Your task to perform on an android device: Find coffee shops on Maps Image 0: 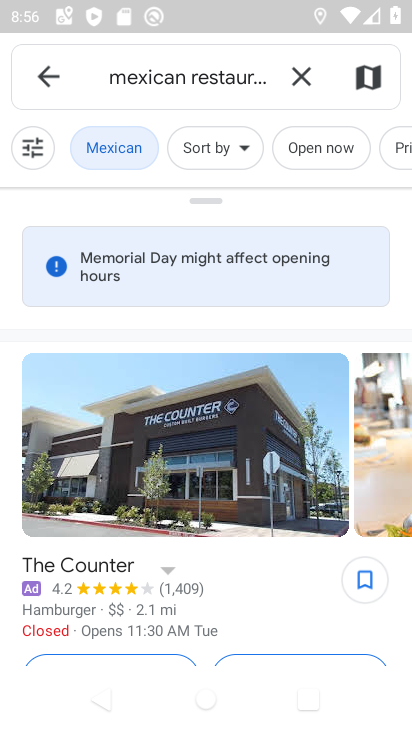
Step 0: click (313, 70)
Your task to perform on an android device: Find coffee shops on Maps Image 1: 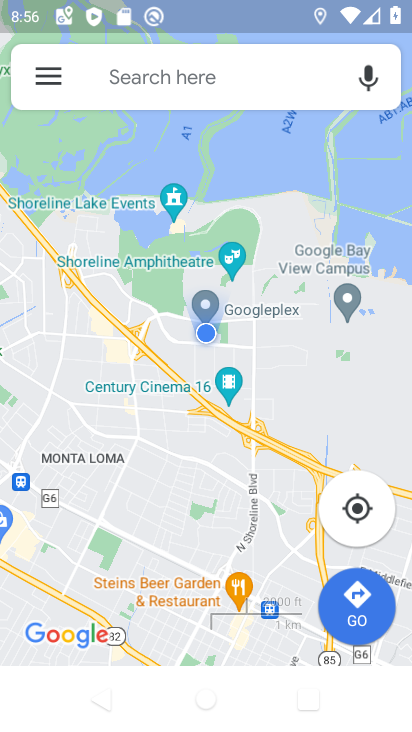
Step 1: click (178, 72)
Your task to perform on an android device: Find coffee shops on Maps Image 2: 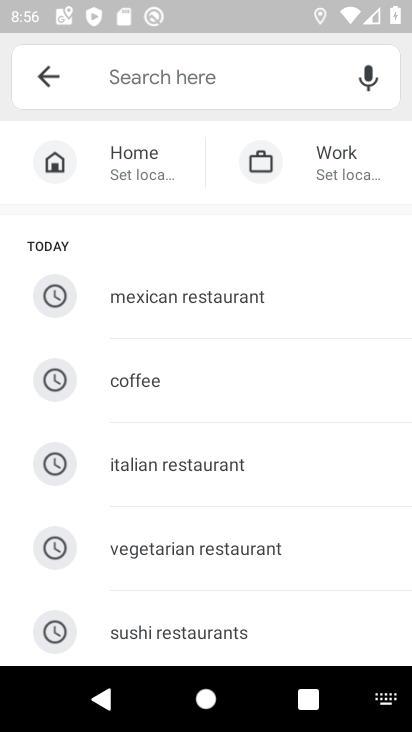
Step 2: type "coffee shops"
Your task to perform on an android device: Find coffee shops on Maps Image 3: 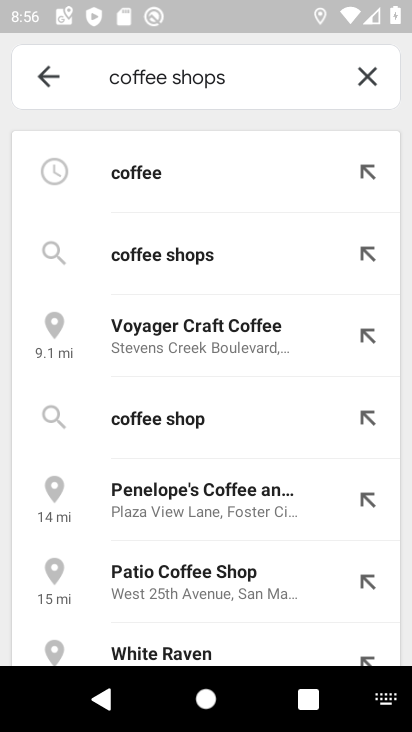
Step 3: click (205, 259)
Your task to perform on an android device: Find coffee shops on Maps Image 4: 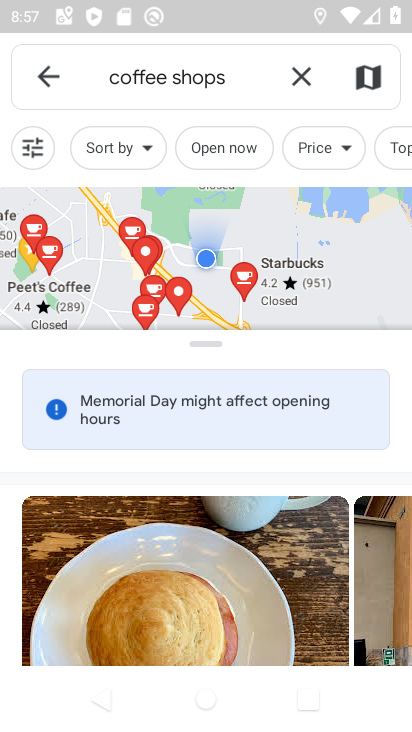
Step 4: task complete